Your task to perform on an android device: turn off data saver in the chrome app Image 0: 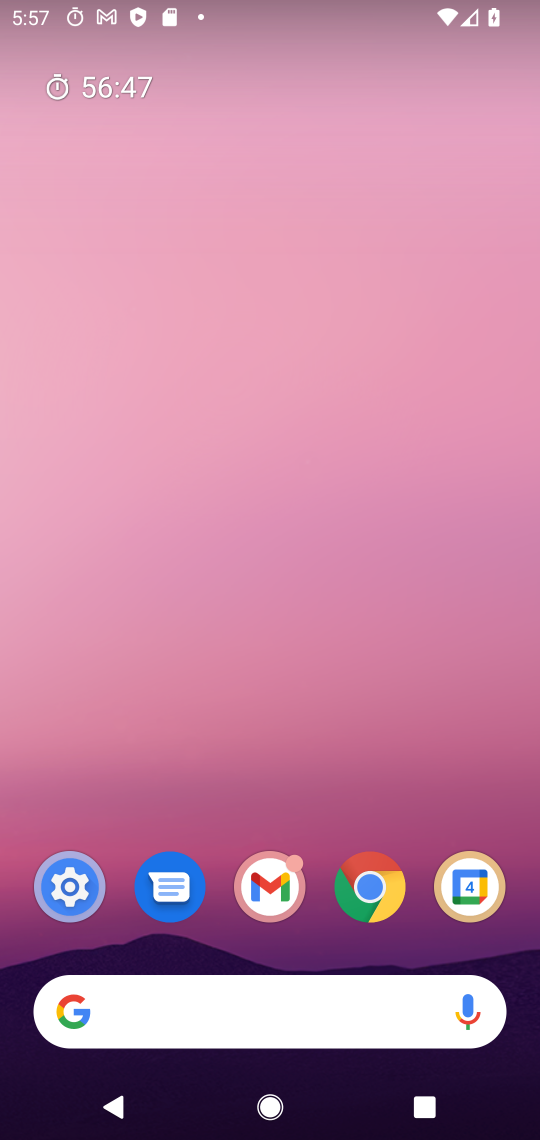
Step 0: click (379, 896)
Your task to perform on an android device: turn off data saver in the chrome app Image 1: 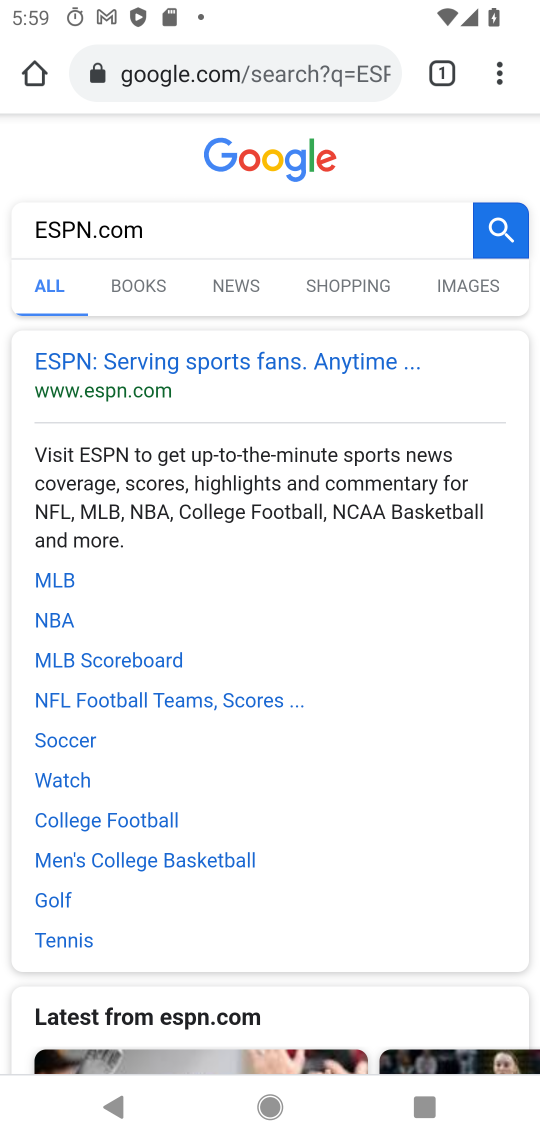
Step 1: click (501, 77)
Your task to perform on an android device: turn off data saver in the chrome app Image 2: 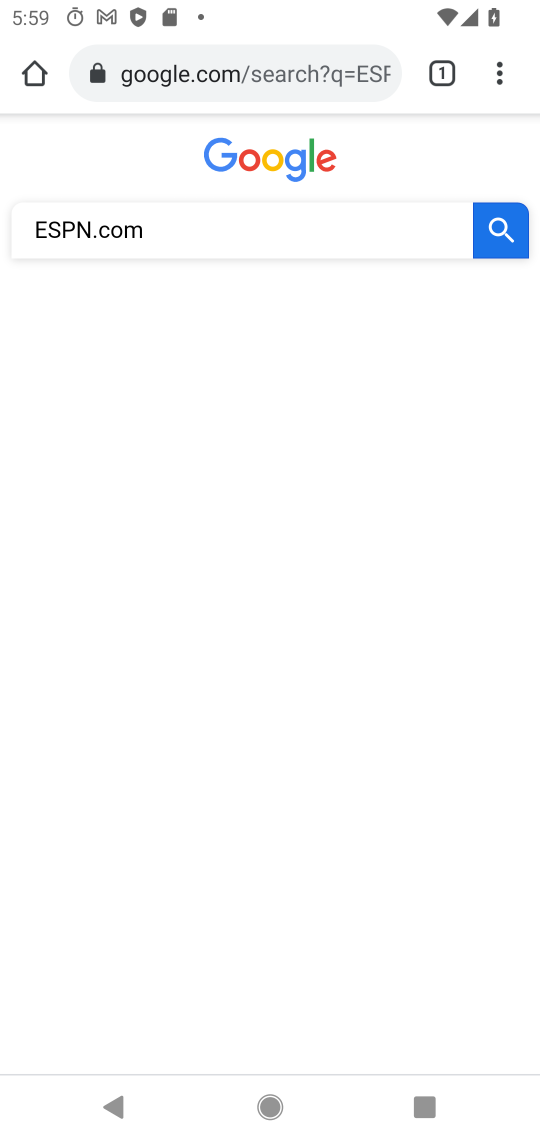
Step 2: click (501, 78)
Your task to perform on an android device: turn off data saver in the chrome app Image 3: 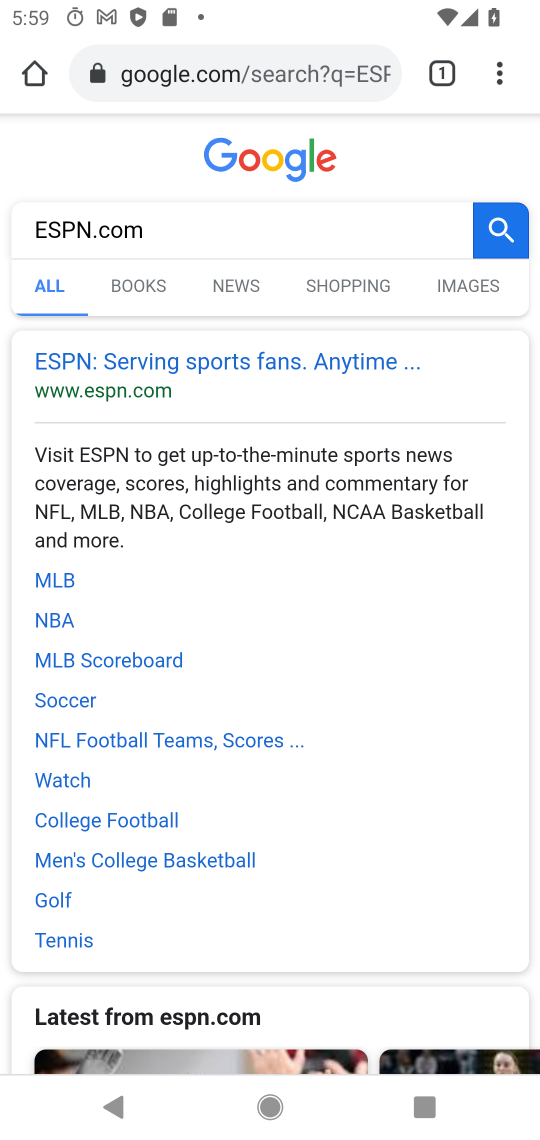
Step 3: click (501, 78)
Your task to perform on an android device: turn off data saver in the chrome app Image 4: 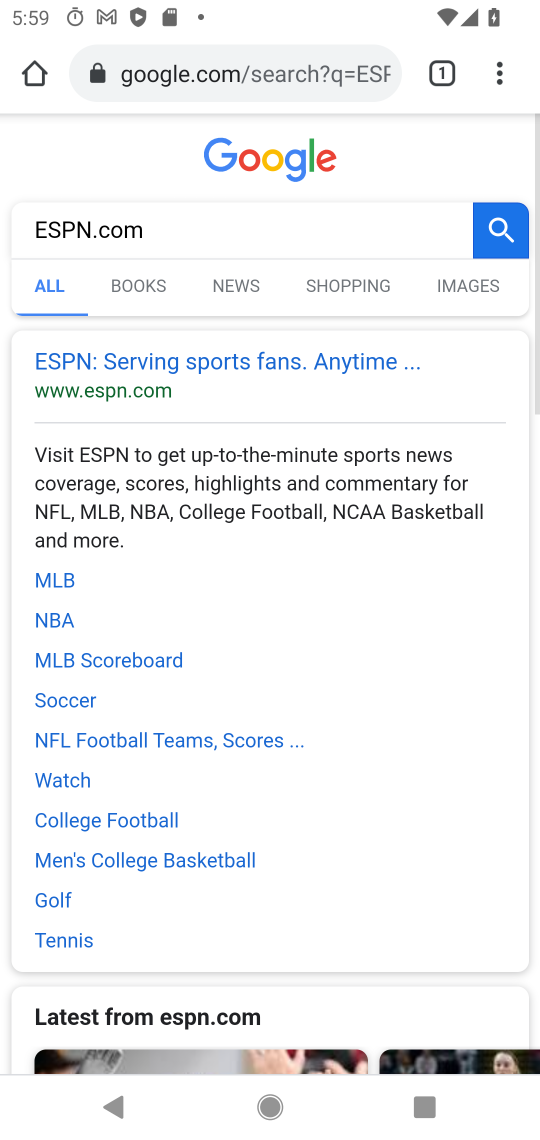
Step 4: click (501, 78)
Your task to perform on an android device: turn off data saver in the chrome app Image 5: 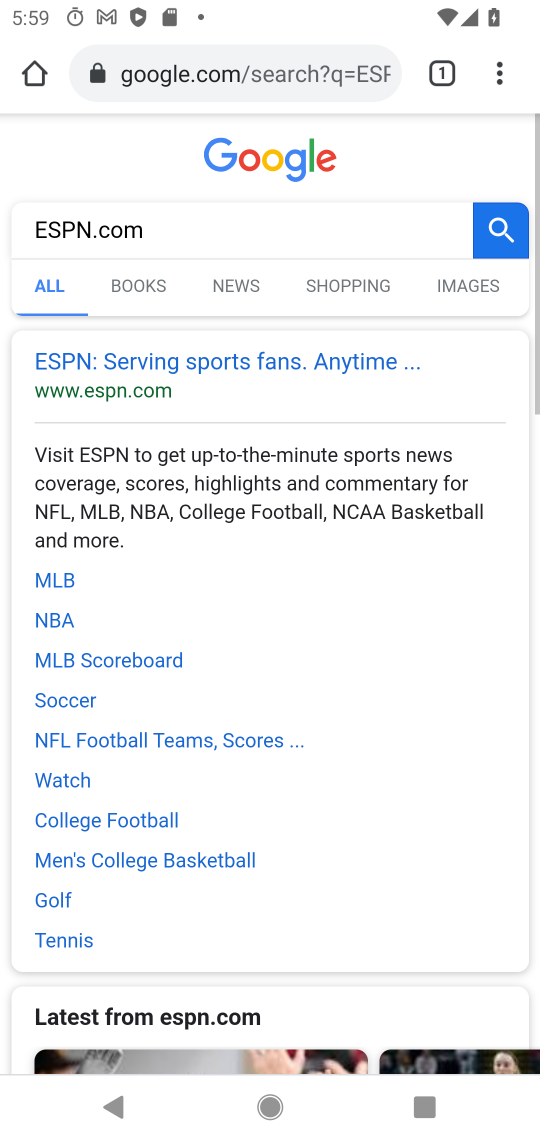
Step 5: click (501, 78)
Your task to perform on an android device: turn off data saver in the chrome app Image 6: 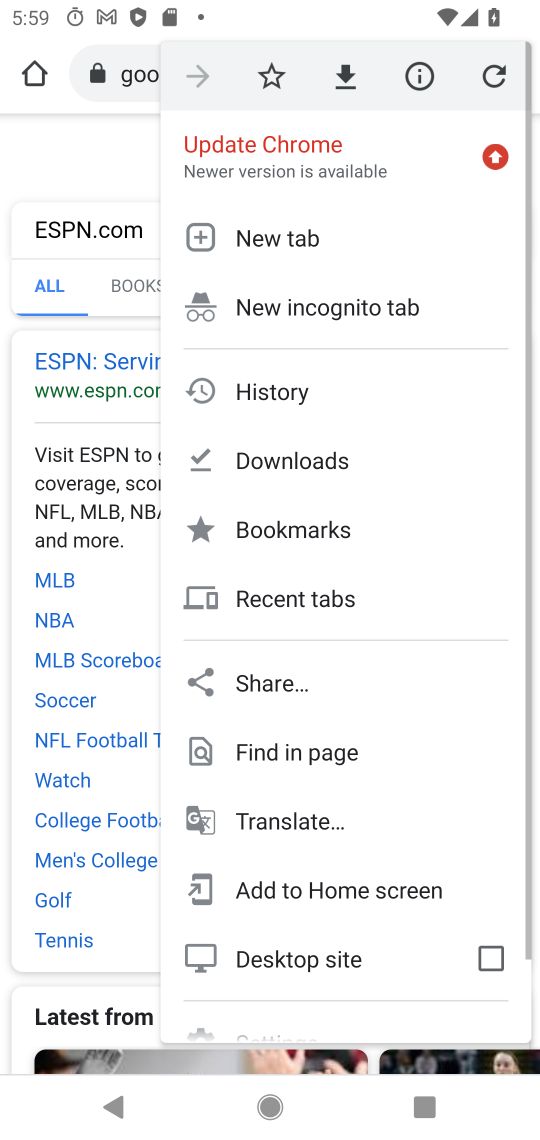
Step 6: click (501, 78)
Your task to perform on an android device: turn off data saver in the chrome app Image 7: 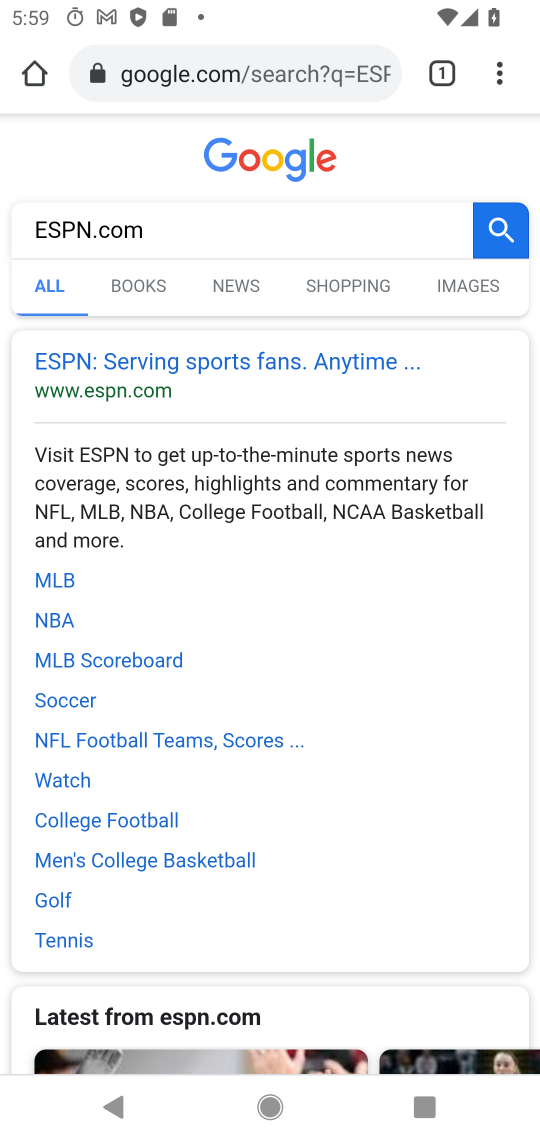
Step 7: click (491, 70)
Your task to perform on an android device: turn off data saver in the chrome app Image 8: 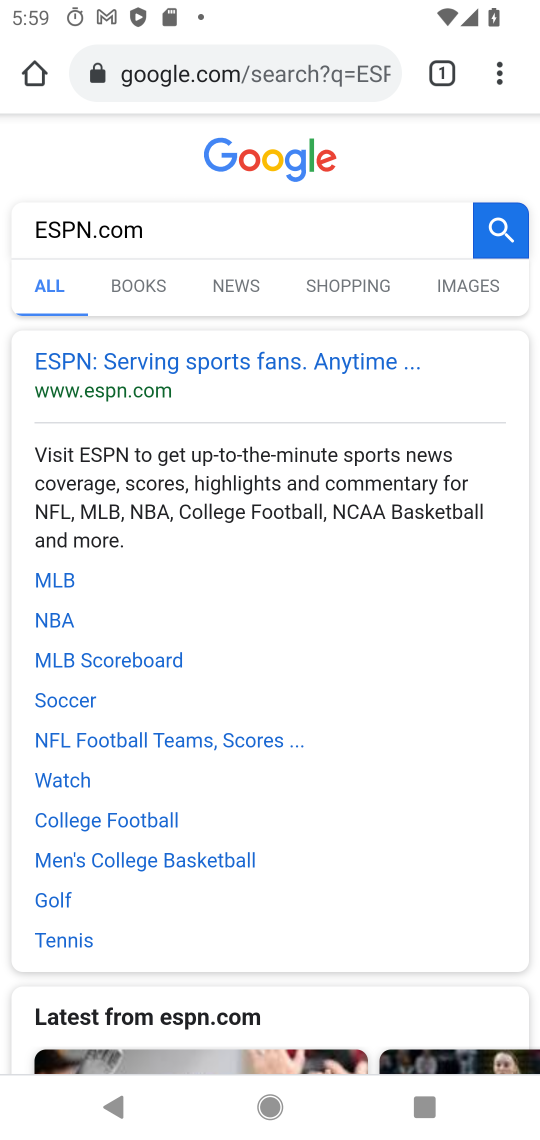
Step 8: click (498, 83)
Your task to perform on an android device: turn off data saver in the chrome app Image 9: 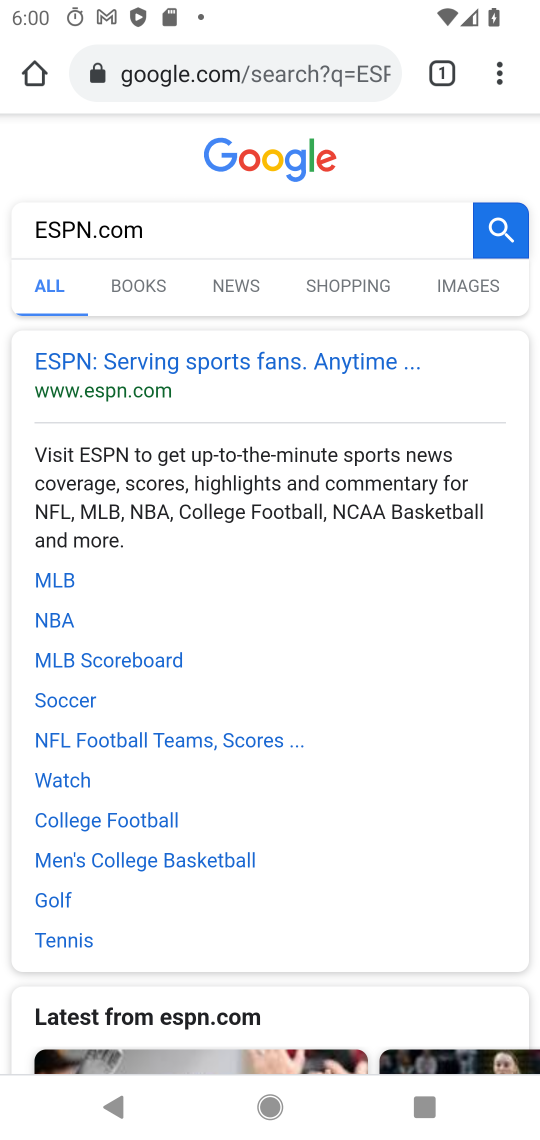
Step 9: click (496, 77)
Your task to perform on an android device: turn off data saver in the chrome app Image 10: 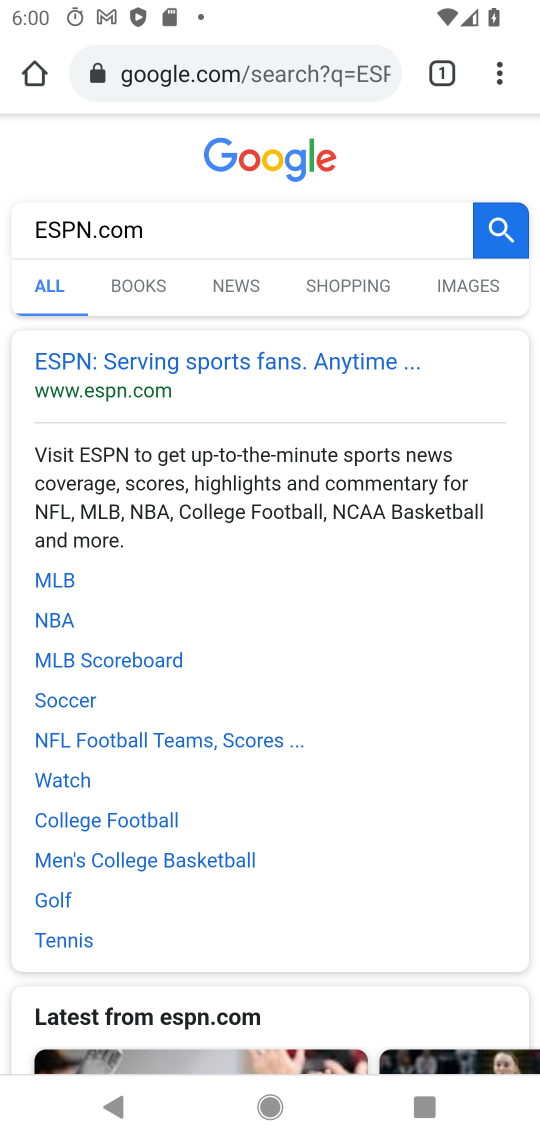
Step 10: click (497, 68)
Your task to perform on an android device: turn off data saver in the chrome app Image 11: 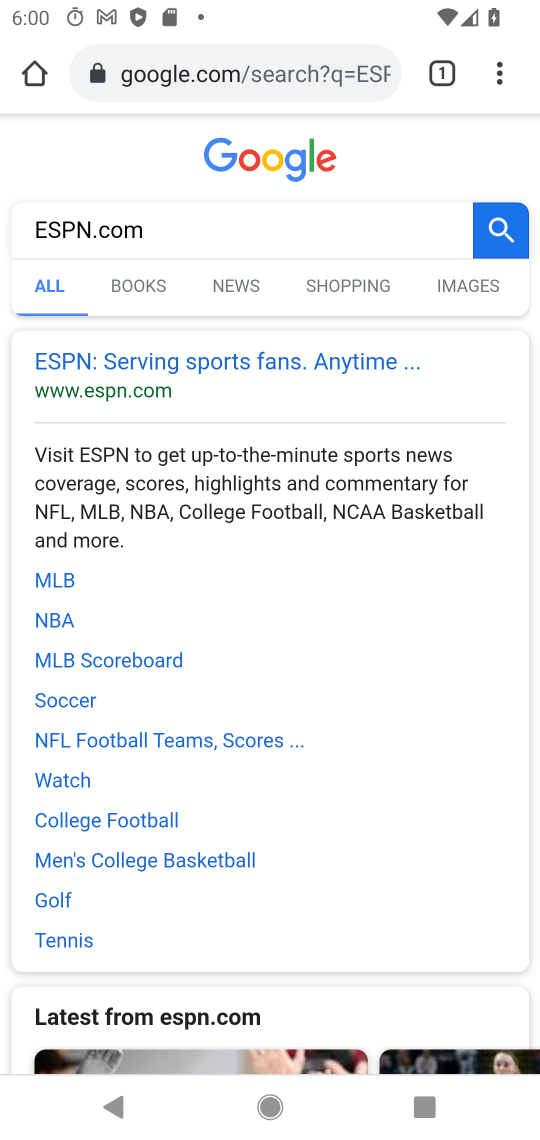
Step 11: click (497, 70)
Your task to perform on an android device: turn off data saver in the chrome app Image 12: 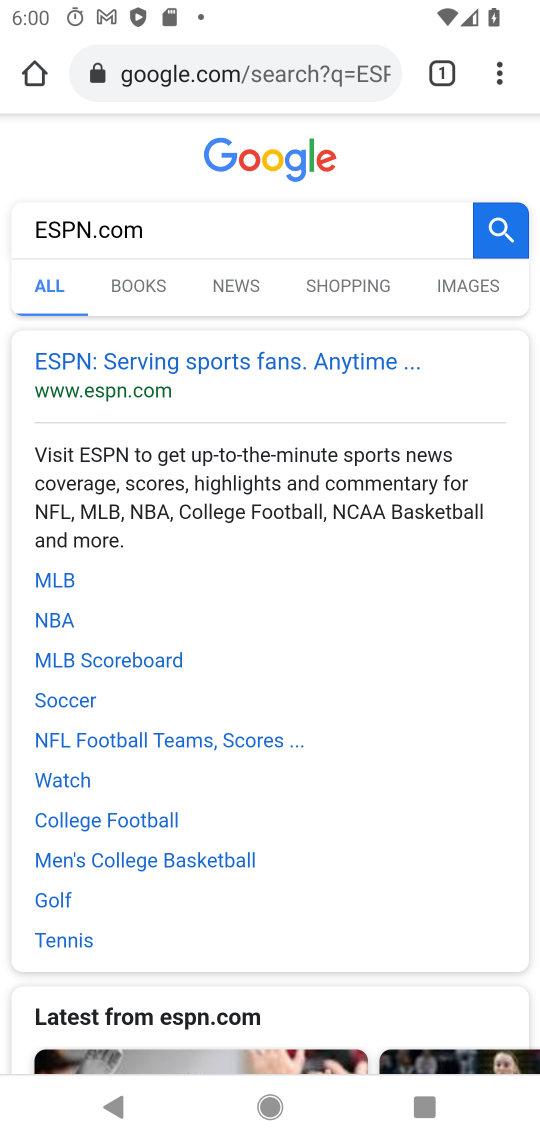
Step 12: click (497, 70)
Your task to perform on an android device: turn off data saver in the chrome app Image 13: 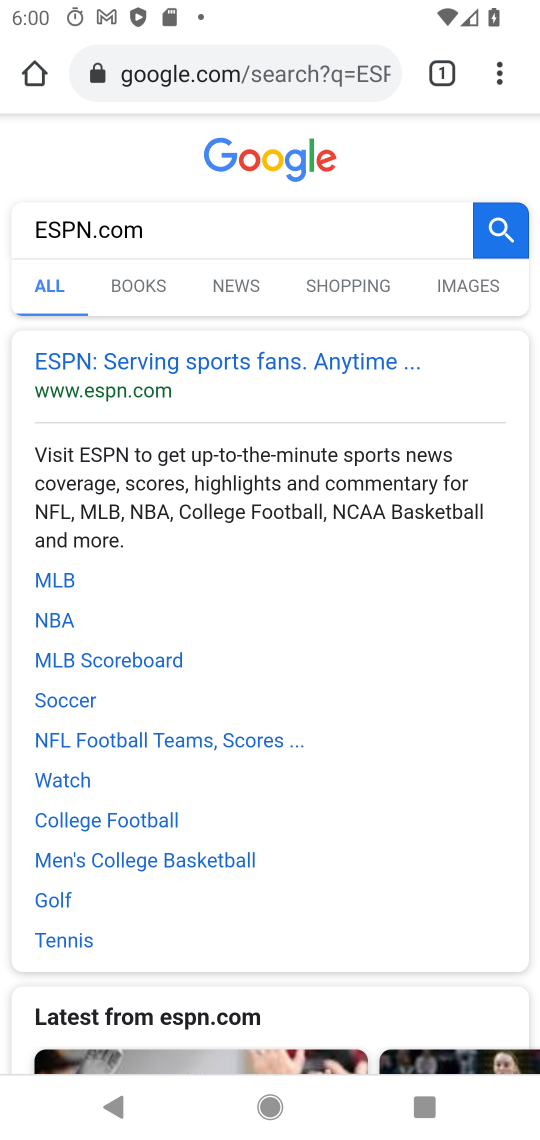
Step 13: click (497, 70)
Your task to perform on an android device: turn off data saver in the chrome app Image 14: 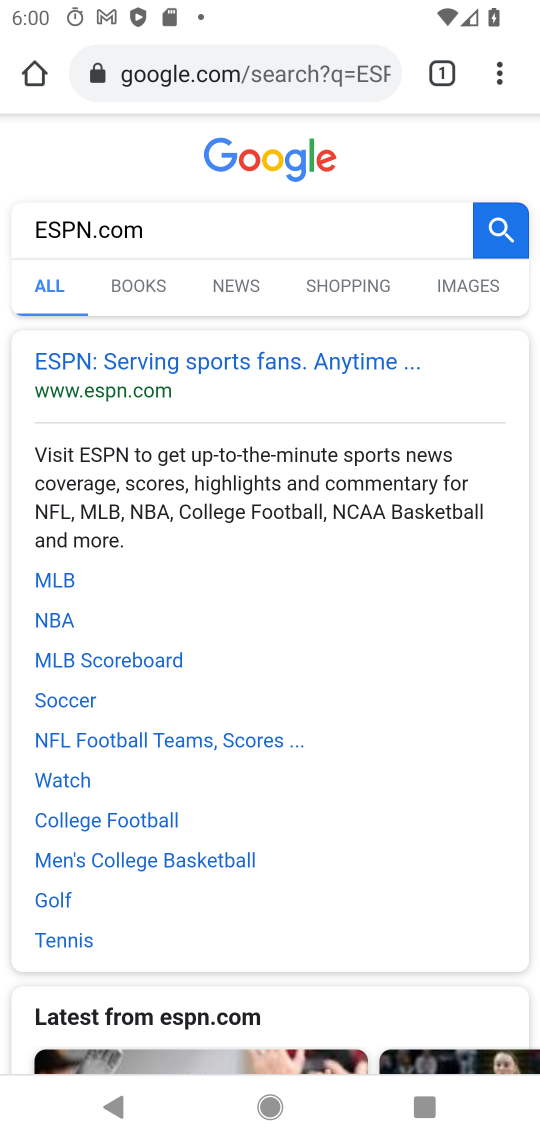
Step 14: click (497, 70)
Your task to perform on an android device: turn off data saver in the chrome app Image 15: 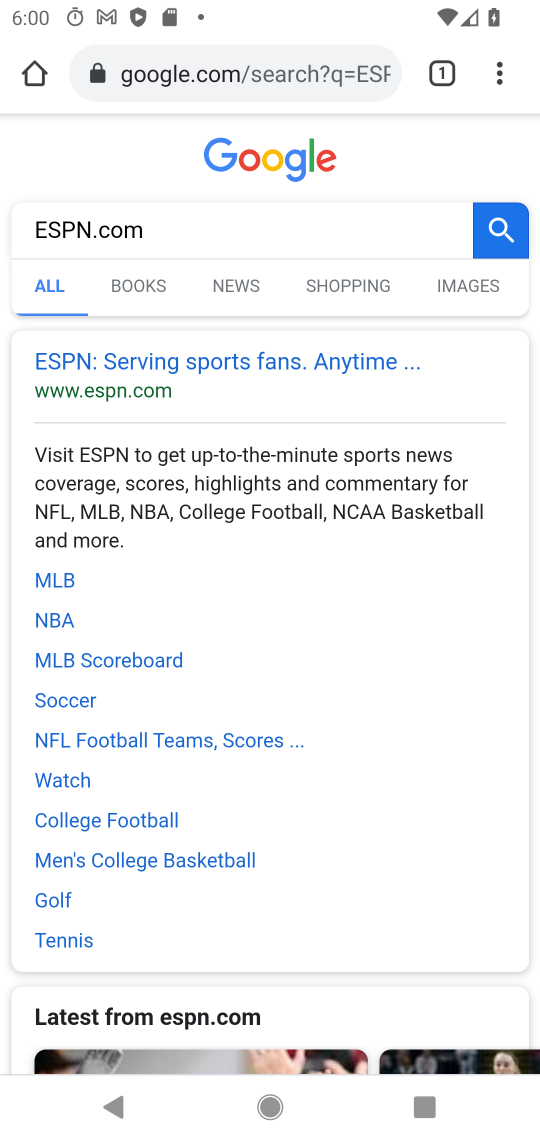
Step 15: click (497, 70)
Your task to perform on an android device: turn off data saver in the chrome app Image 16: 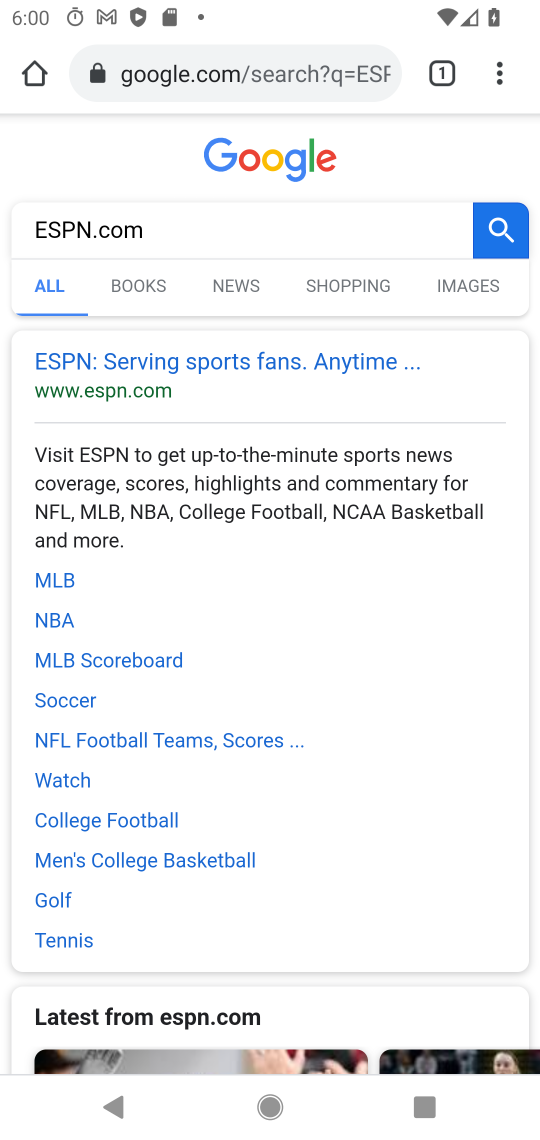
Step 16: click (497, 70)
Your task to perform on an android device: turn off data saver in the chrome app Image 17: 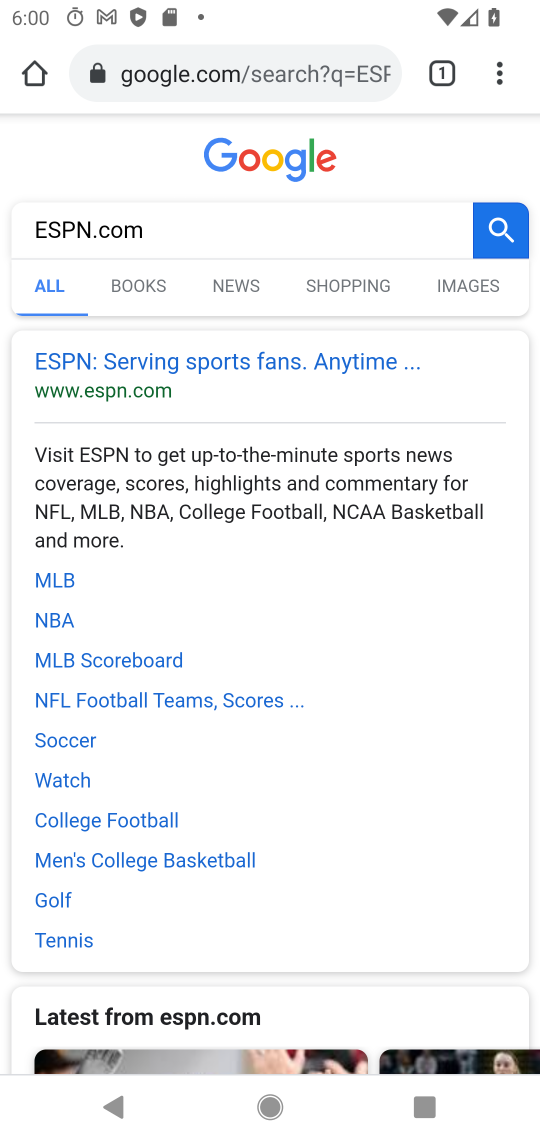
Step 17: click (497, 70)
Your task to perform on an android device: turn off data saver in the chrome app Image 18: 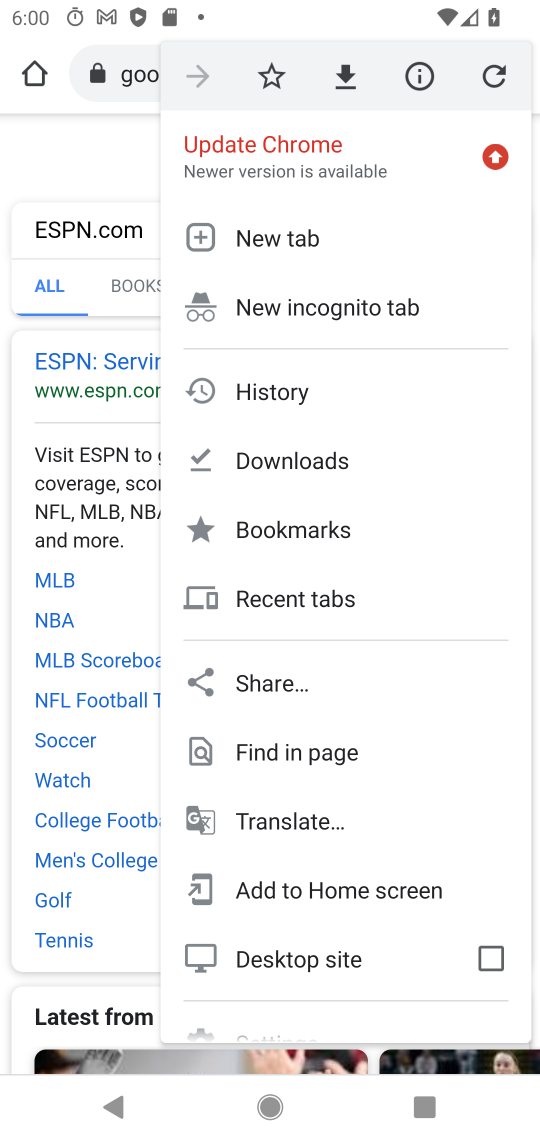
Step 18: drag from (412, 965) to (353, 242)
Your task to perform on an android device: turn off data saver in the chrome app Image 19: 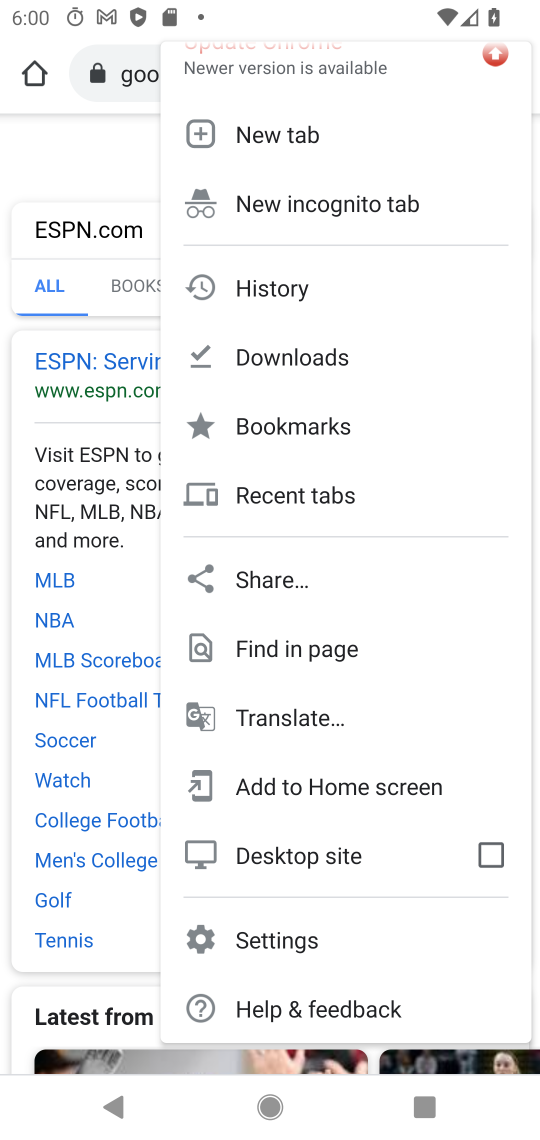
Step 19: click (262, 933)
Your task to perform on an android device: turn off data saver in the chrome app Image 20: 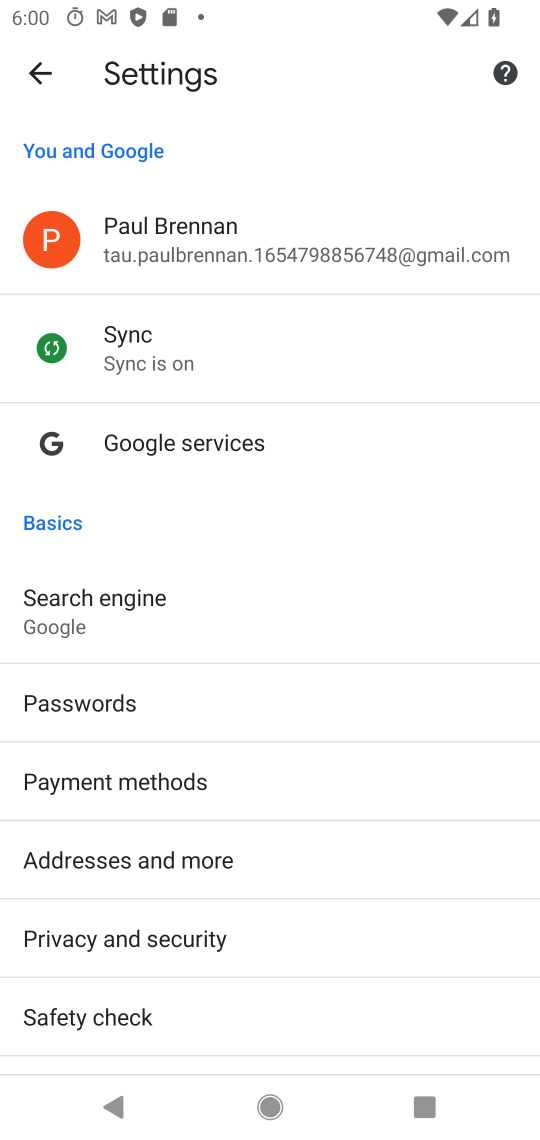
Step 20: drag from (335, 1030) to (322, 463)
Your task to perform on an android device: turn off data saver in the chrome app Image 21: 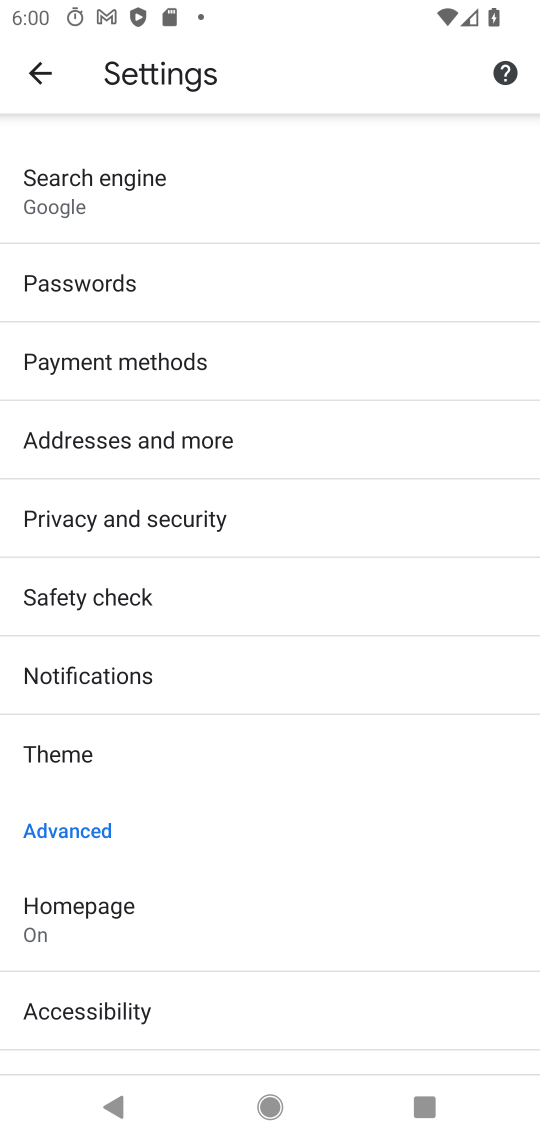
Step 21: drag from (322, 849) to (308, 688)
Your task to perform on an android device: turn off data saver in the chrome app Image 22: 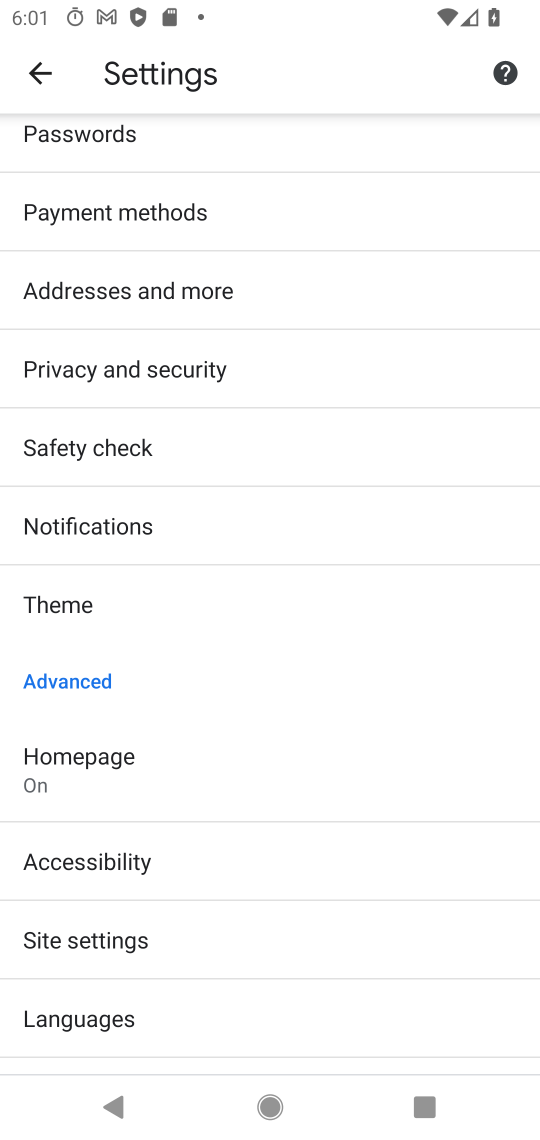
Step 22: drag from (304, 1011) to (289, 553)
Your task to perform on an android device: turn off data saver in the chrome app Image 23: 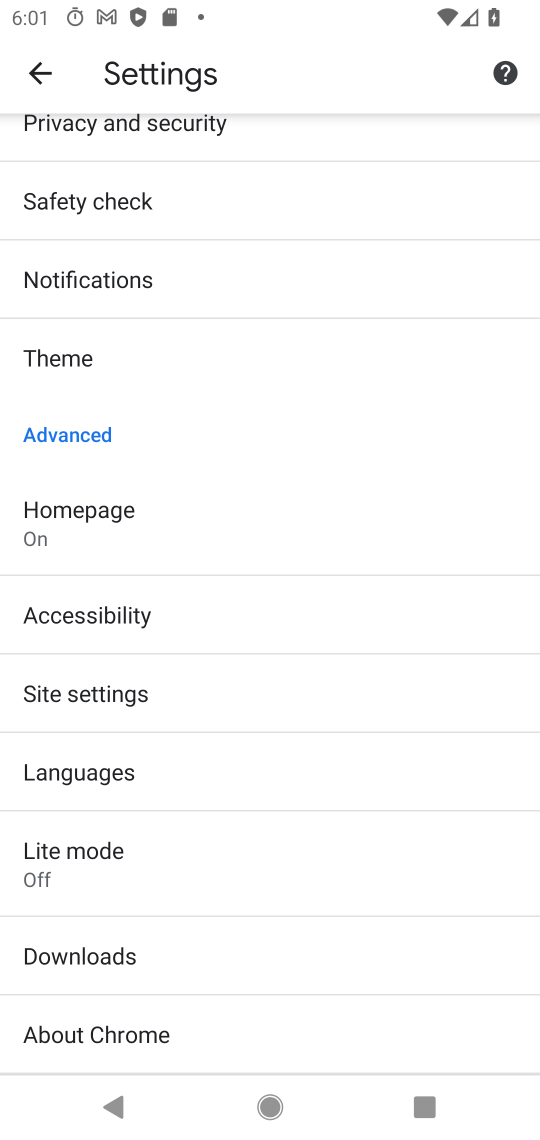
Step 23: click (99, 877)
Your task to perform on an android device: turn off data saver in the chrome app Image 24: 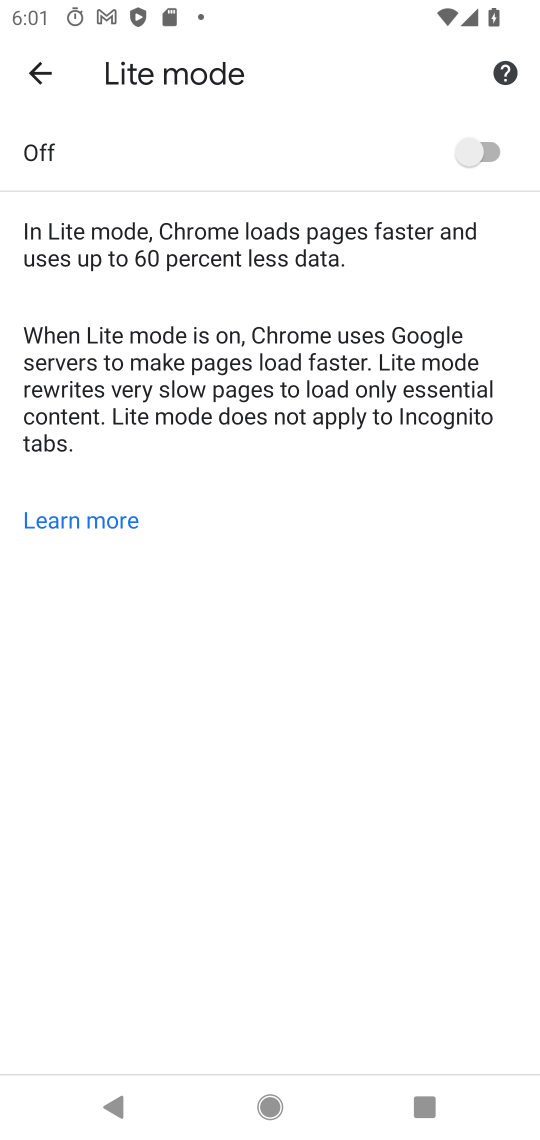
Step 24: task complete